Your task to perform on an android device: open a new tab in the chrome app Image 0: 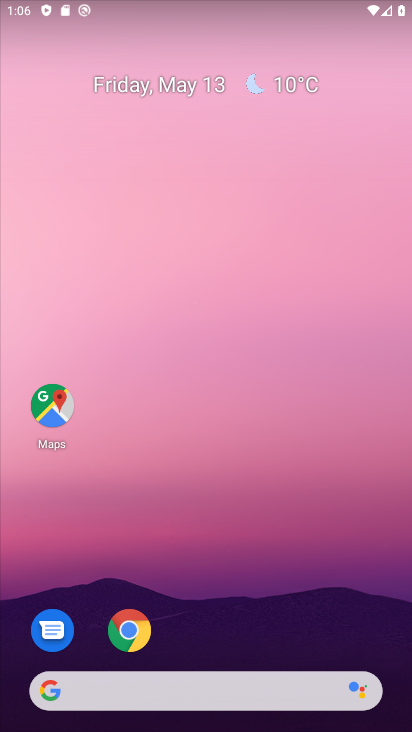
Step 0: click (133, 639)
Your task to perform on an android device: open a new tab in the chrome app Image 1: 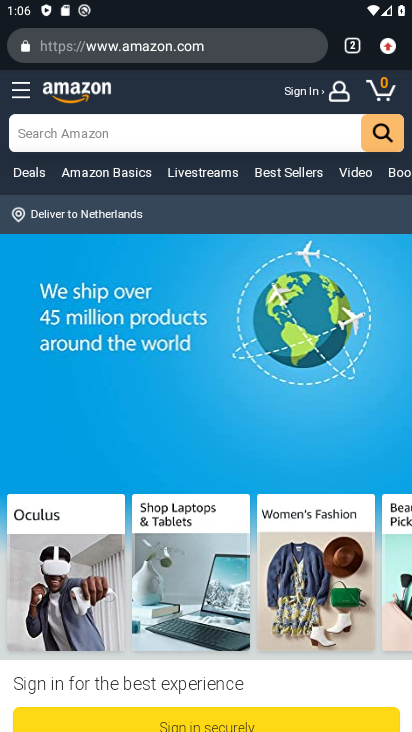
Step 1: task complete